Your task to perform on an android device: Go to ESPN.com Image 0: 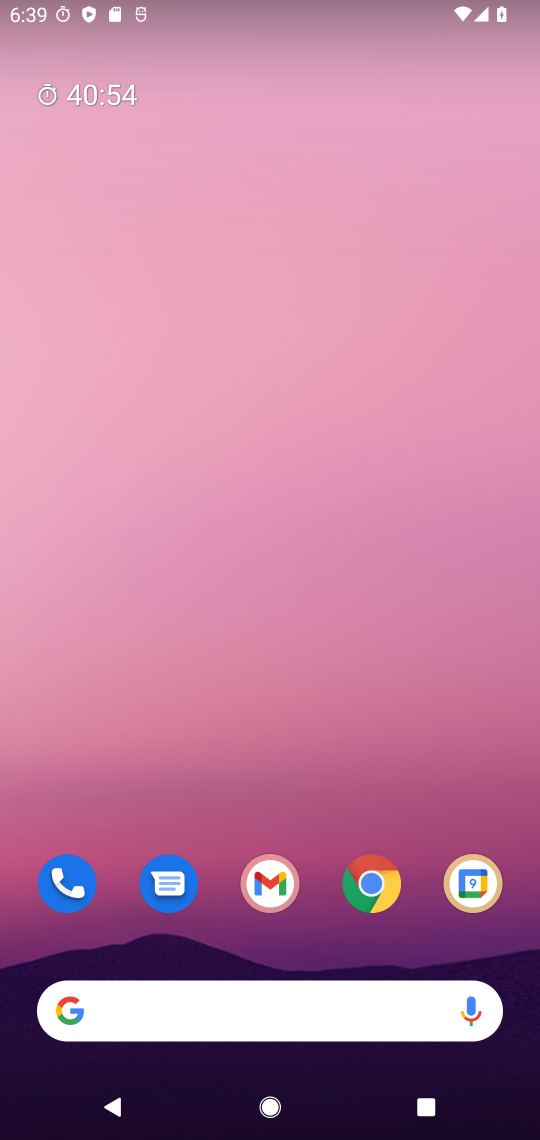
Step 0: click (369, 863)
Your task to perform on an android device: Go to ESPN.com Image 1: 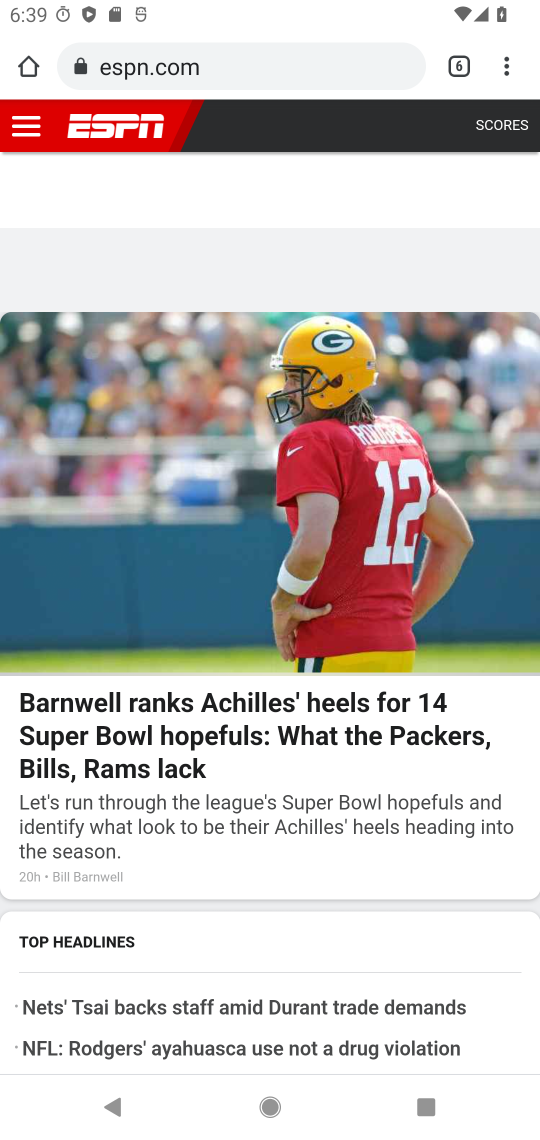
Step 1: task complete